Your task to perform on an android device: toggle data saver in the chrome app Image 0: 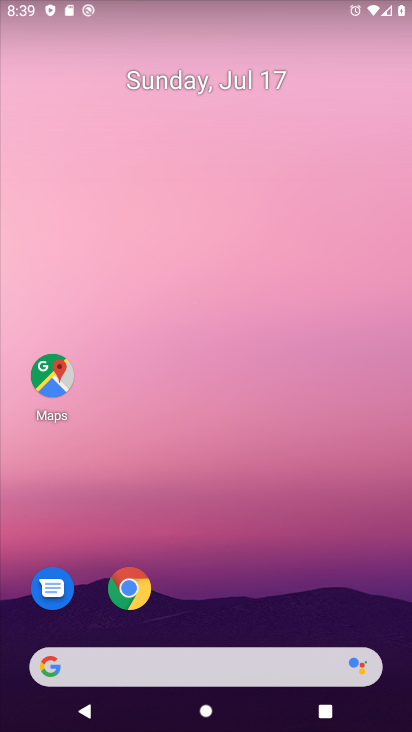
Step 0: click (129, 586)
Your task to perform on an android device: toggle data saver in the chrome app Image 1: 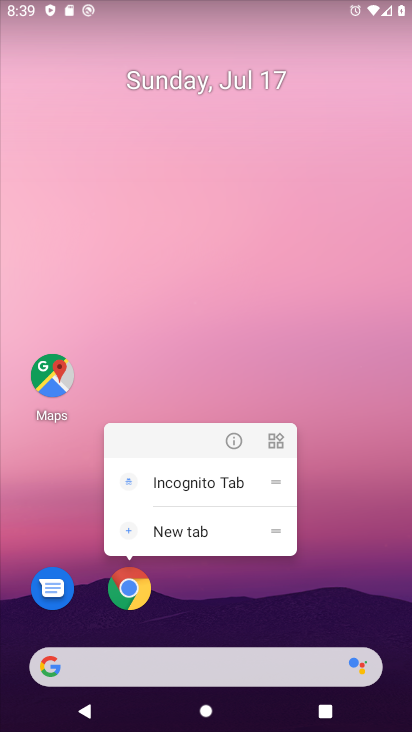
Step 1: click (131, 608)
Your task to perform on an android device: toggle data saver in the chrome app Image 2: 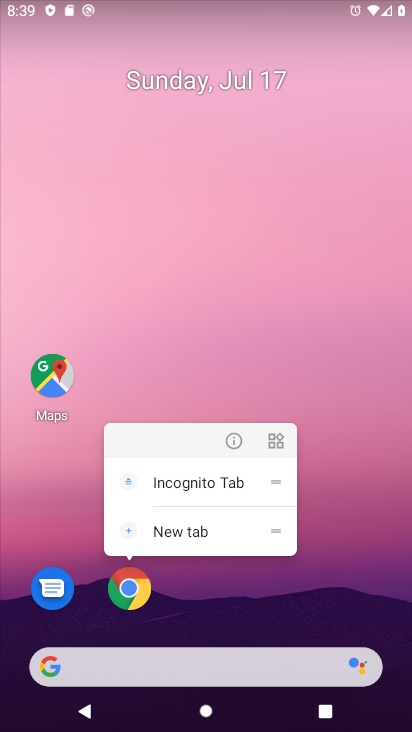
Step 2: click (132, 599)
Your task to perform on an android device: toggle data saver in the chrome app Image 3: 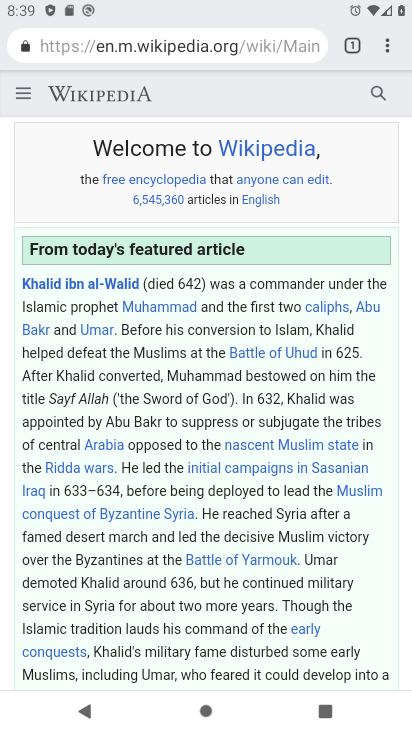
Step 3: drag from (389, 44) to (233, 543)
Your task to perform on an android device: toggle data saver in the chrome app Image 4: 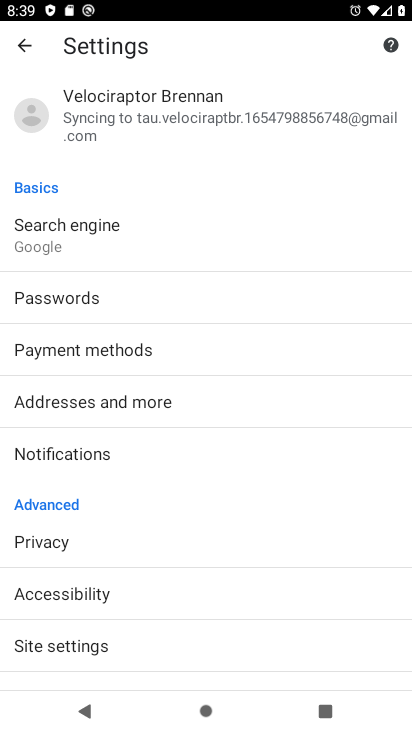
Step 4: drag from (77, 582) to (82, 220)
Your task to perform on an android device: toggle data saver in the chrome app Image 5: 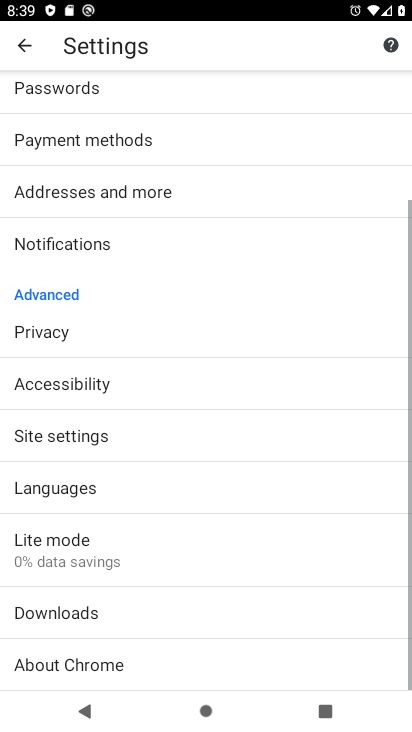
Step 5: click (43, 534)
Your task to perform on an android device: toggle data saver in the chrome app Image 6: 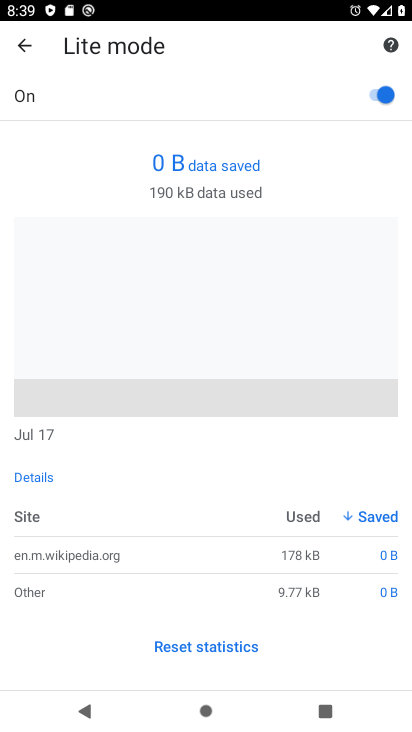
Step 6: click (387, 83)
Your task to perform on an android device: toggle data saver in the chrome app Image 7: 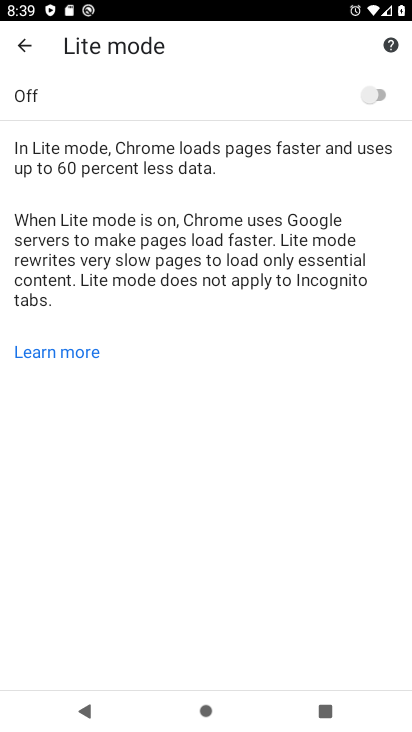
Step 7: task complete